Your task to perform on an android device: set the timer Image 0: 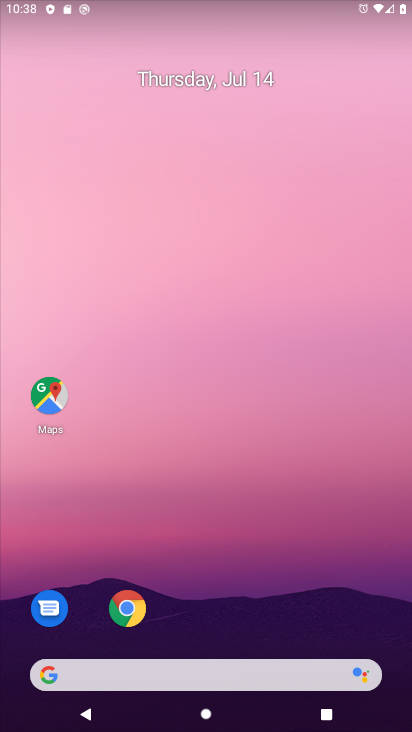
Step 0: drag from (230, 627) to (241, 54)
Your task to perform on an android device: set the timer Image 1: 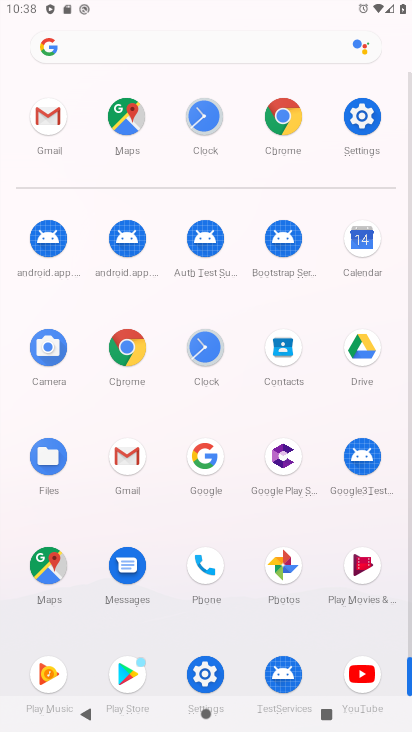
Step 1: click (194, 350)
Your task to perform on an android device: set the timer Image 2: 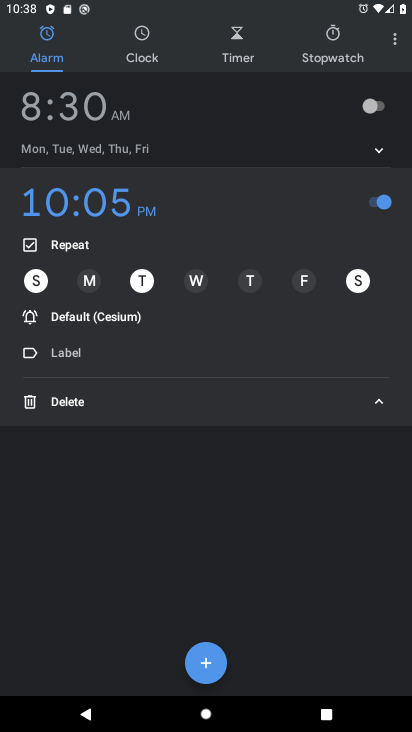
Step 2: click (247, 50)
Your task to perform on an android device: set the timer Image 3: 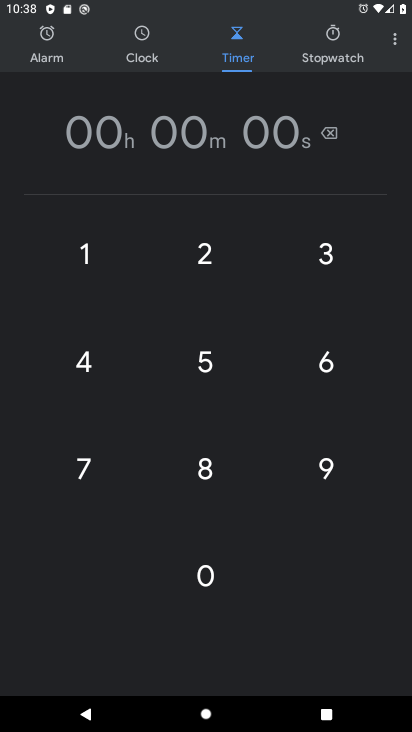
Step 3: click (85, 468)
Your task to perform on an android device: set the timer Image 4: 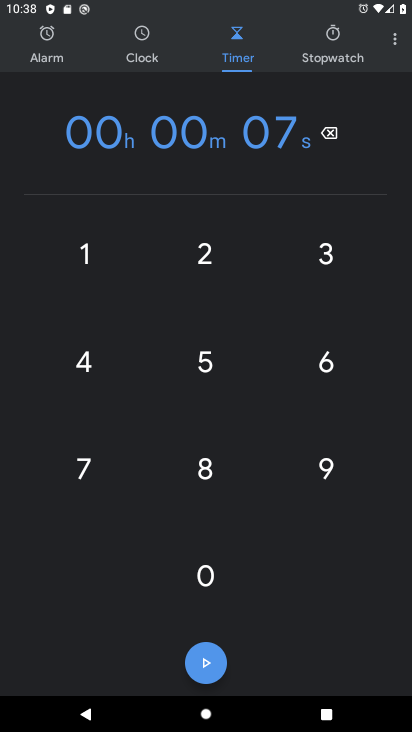
Step 4: click (71, 359)
Your task to perform on an android device: set the timer Image 5: 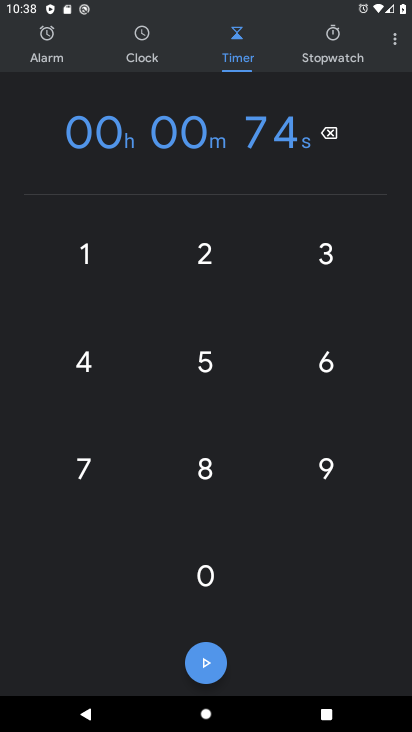
Step 5: click (225, 364)
Your task to perform on an android device: set the timer Image 6: 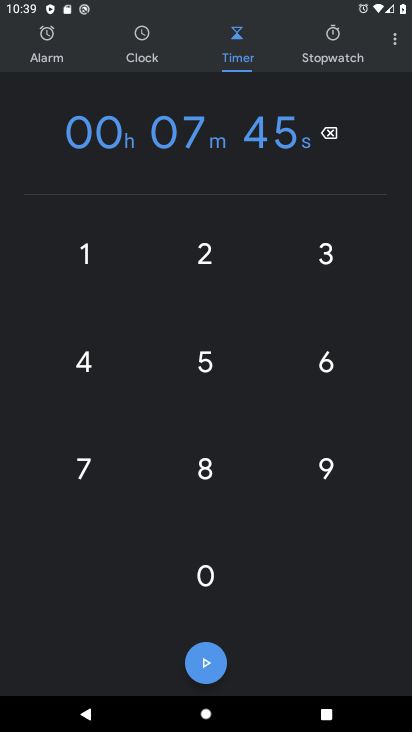
Step 6: click (204, 670)
Your task to perform on an android device: set the timer Image 7: 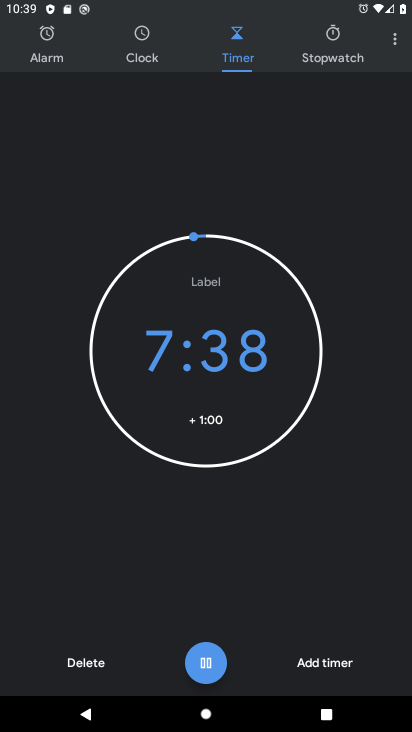
Step 7: task complete